Your task to perform on an android device: What is the recent news? Image 0: 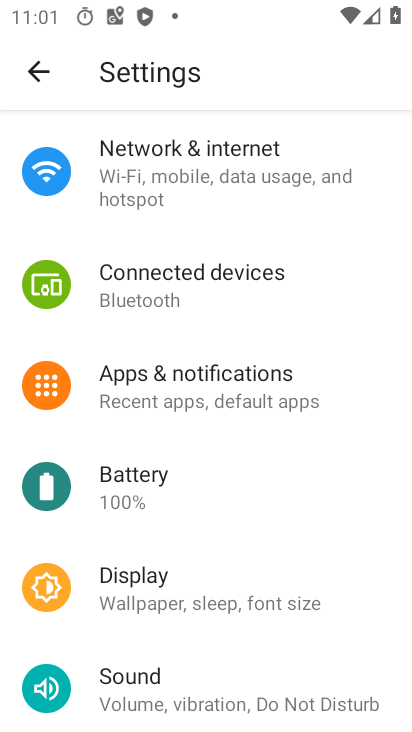
Step 0: press home button
Your task to perform on an android device: What is the recent news? Image 1: 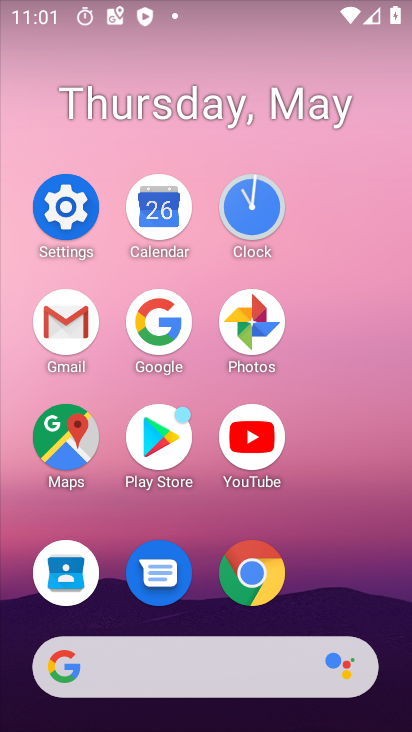
Step 1: click (150, 303)
Your task to perform on an android device: What is the recent news? Image 2: 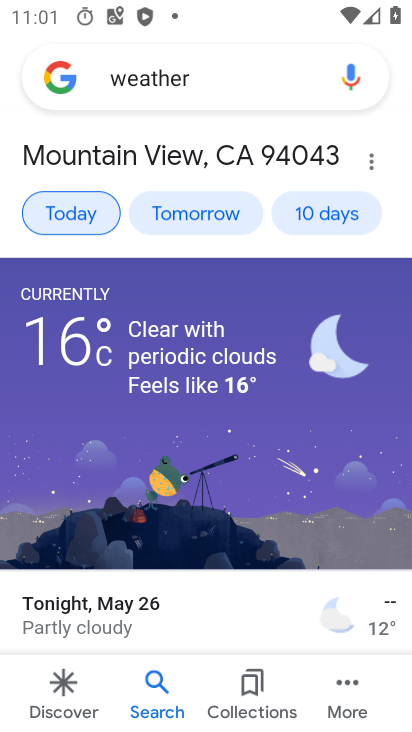
Step 2: click (225, 90)
Your task to perform on an android device: What is the recent news? Image 3: 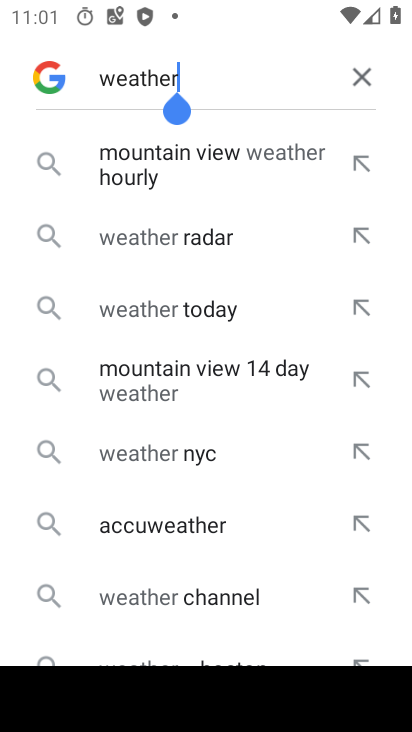
Step 3: click (367, 84)
Your task to perform on an android device: What is the recent news? Image 4: 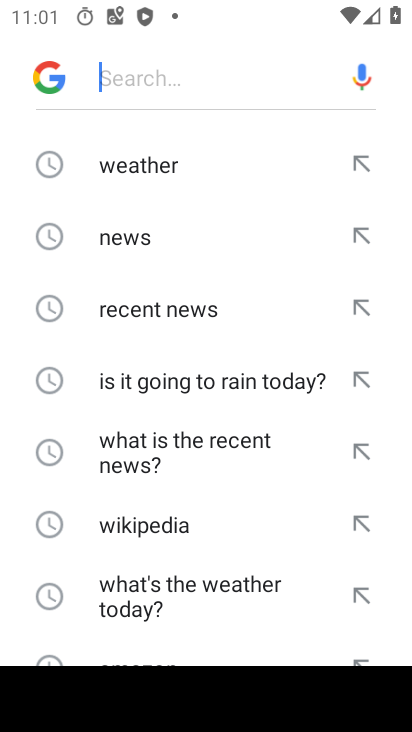
Step 4: click (152, 307)
Your task to perform on an android device: What is the recent news? Image 5: 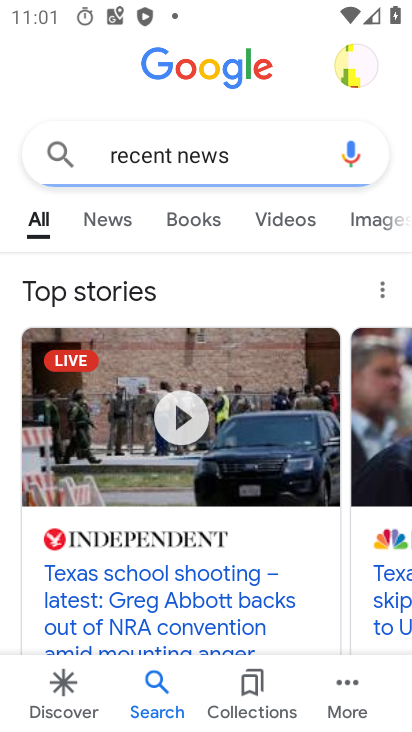
Step 5: task complete